Your task to perform on an android device: toggle wifi Image 0: 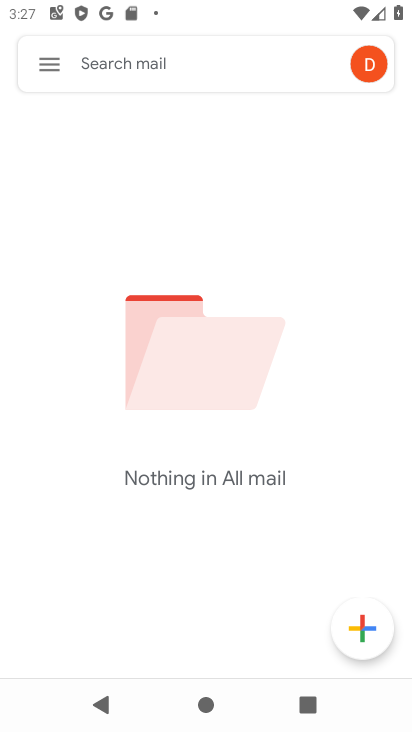
Step 0: press home button
Your task to perform on an android device: toggle wifi Image 1: 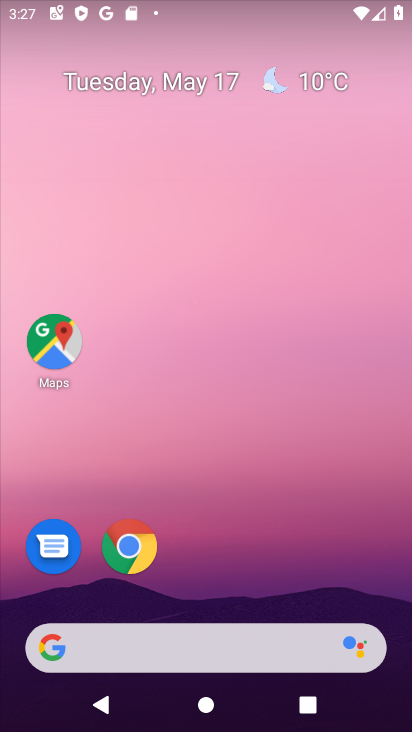
Step 1: drag from (215, 597) to (279, 190)
Your task to perform on an android device: toggle wifi Image 2: 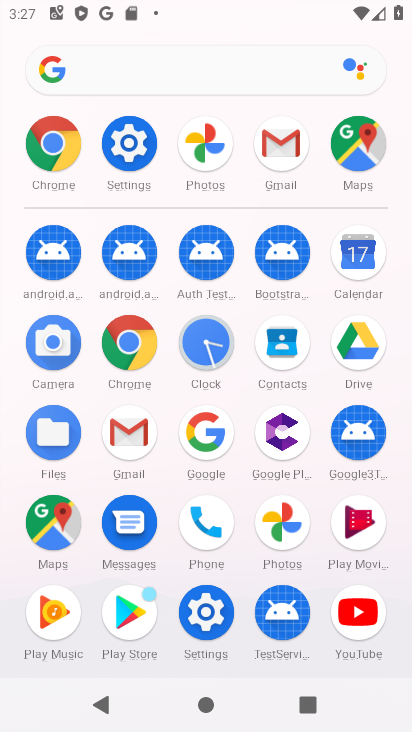
Step 2: click (204, 603)
Your task to perform on an android device: toggle wifi Image 3: 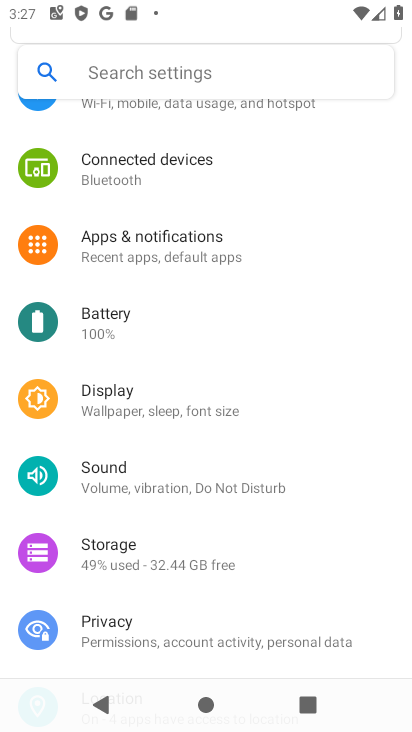
Step 3: drag from (231, 200) to (205, 664)
Your task to perform on an android device: toggle wifi Image 4: 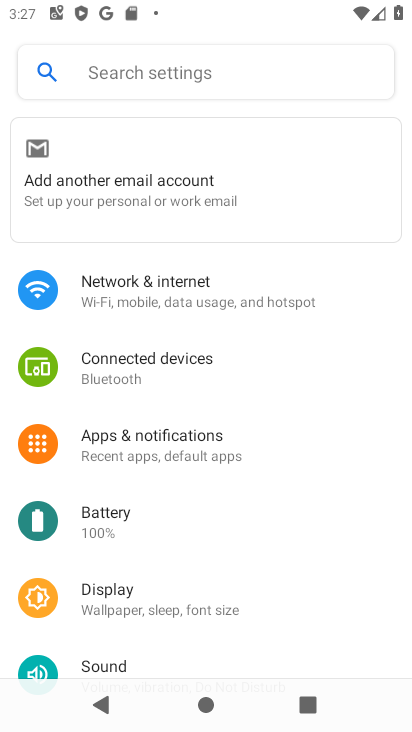
Step 4: click (163, 299)
Your task to perform on an android device: toggle wifi Image 5: 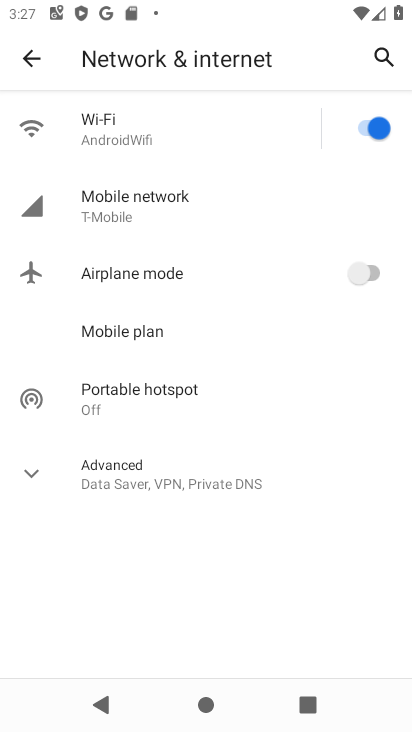
Step 5: click (357, 130)
Your task to perform on an android device: toggle wifi Image 6: 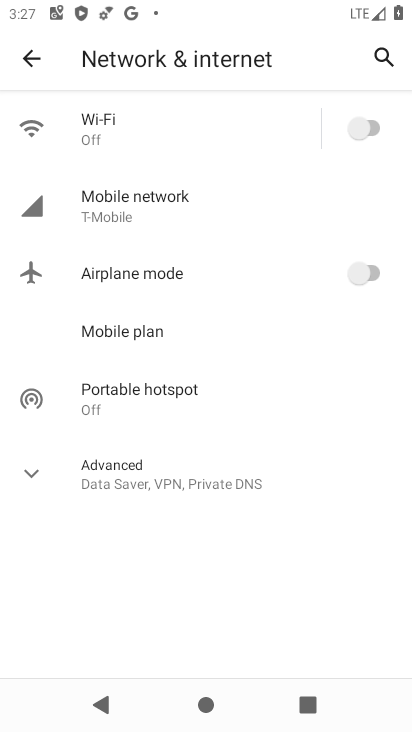
Step 6: task complete